Your task to perform on an android device: Open Google Chrome and click the shortcut for Amazon.com Image 0: 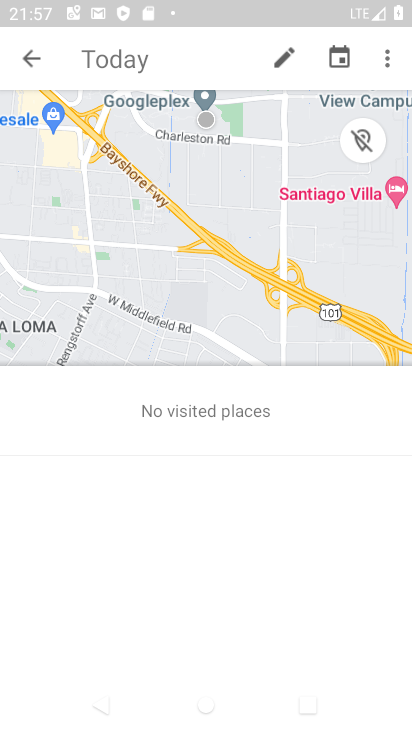
Step 0: press home button
Your task to perform on an android device: Open Google Chrome and click the shortcut for Amazon.com Image 1: 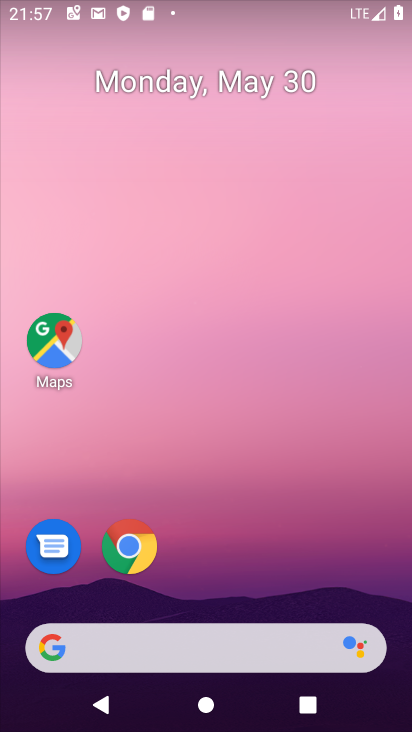
Step 1: drag from (348, 550) to (295, 101)
Your task to perform on an android device: Open Google Chrome and click the shortcut for Amazon.com Image 2: 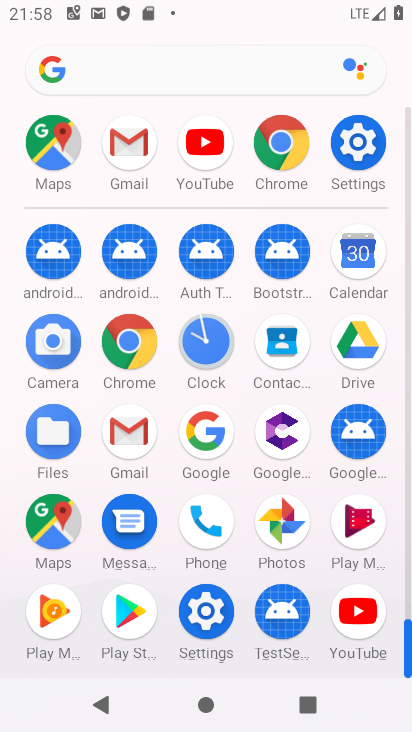
Step 2: click (129, 340)
Your task to perform on an android device: Open Google Chrome and click the shortcut for Amazon.com Image 3: 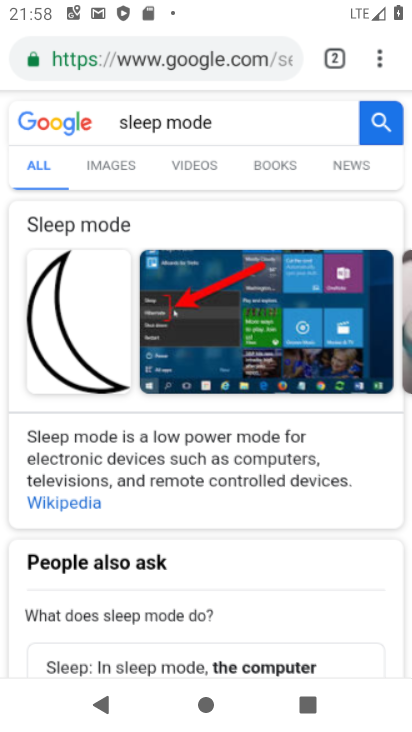
Step 3: click (338, 67)
Your task to perform on an android device: Open Google Chrome and click the shortcut for Amazon.com Image 4: 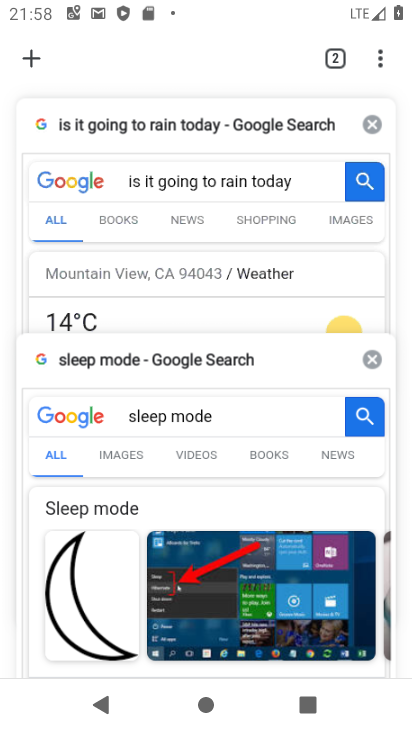
Step 4: click (26, 63)
Your task to perform on an android device: Open Google Chrome and click the shortcut for Amazon.com Image 5: 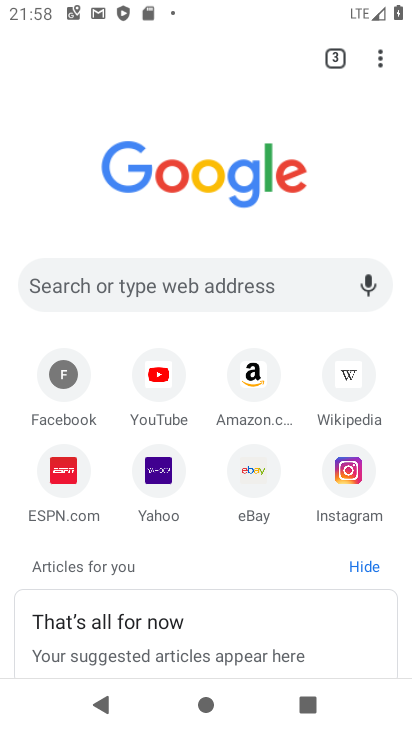
Step 5: click (235, 386)
Your task to perform on an android device: Open Google Chrome and click the shortcut for Amazon.com Image 6: 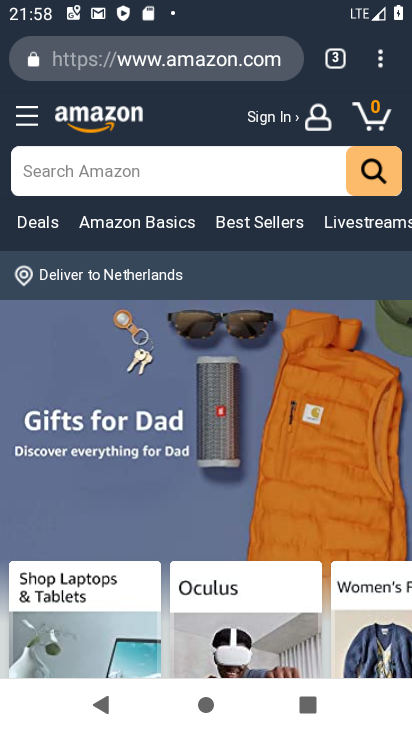
Step 6: task complete